Your task to perform on an android device: Clear the cart on walmart.com. Search for lenovo thinkpad on walmart.com, select the first entry, and add it to the cart. Image 0: 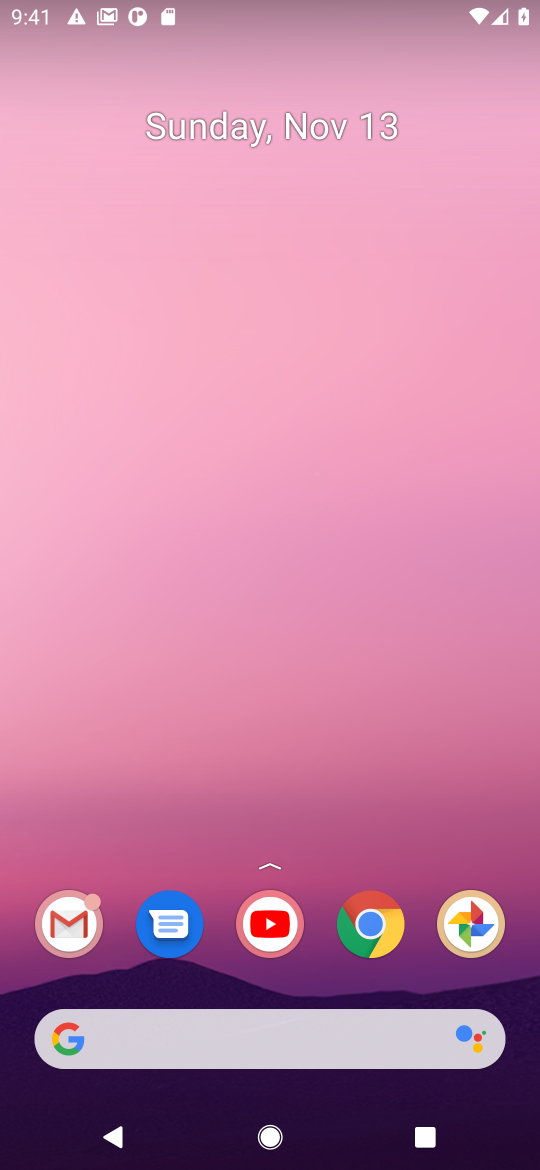
Step 0: click (384, 935)
Your task to perform on an android device: Clear the cart on walmart.com. Search for lenovo thinkpad on walmart.com, select the first entry, and add it to the cart. Image 1: 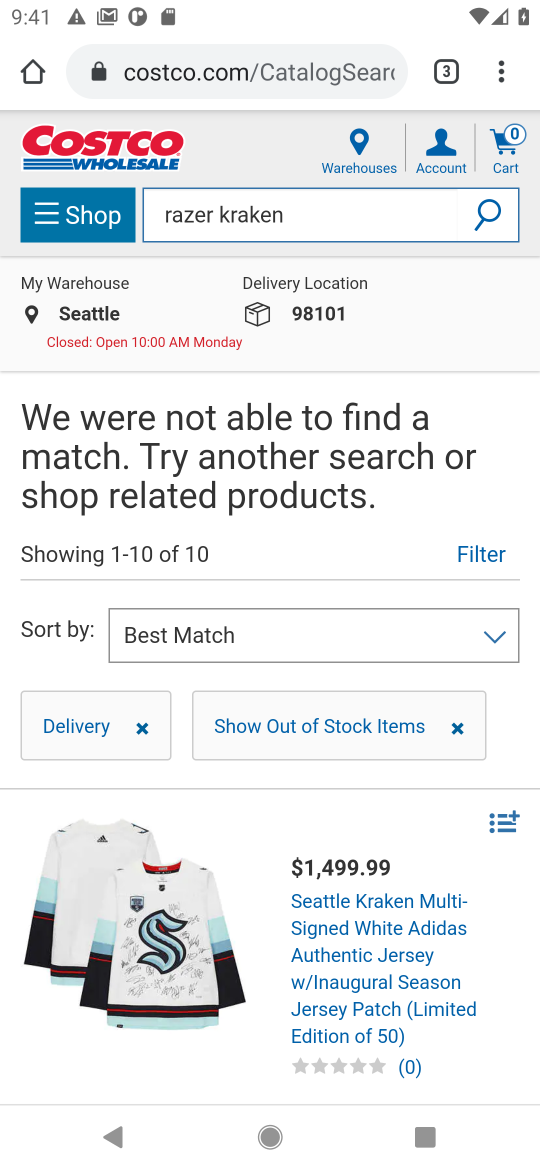
Step 1: click (237, 77)
Your task to perform on an android device: Clear the cart on walmart.com. Search for lenovo thinkpad on walmart.com, select the first entry, and add it to the cart. Image 2: 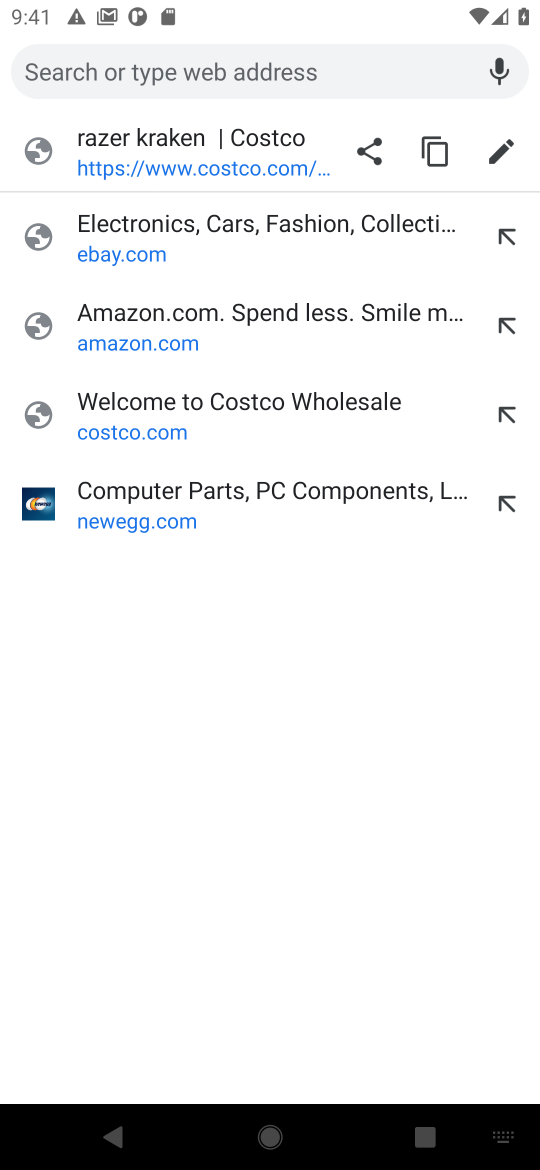
Step 2: type "walmart.com"
Your task to perform on an android device: Clear the cart on walmart.com. Search for lenovo thinkpad on walmart.com, select the first entry, and add it to the cart. Image 3: 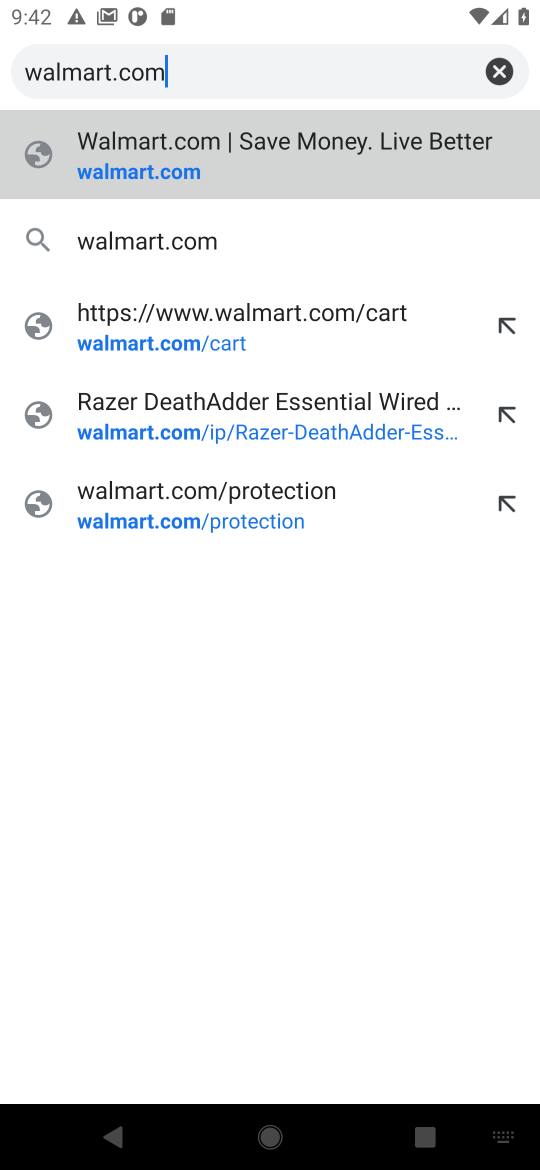
Step 3: click (97, 159)
Your task to perform on an android device: Clear the cart on walmart.com. Search for lenovo thinkpad on walmart.com, select the first entry, and add it to the cart. Image 4: 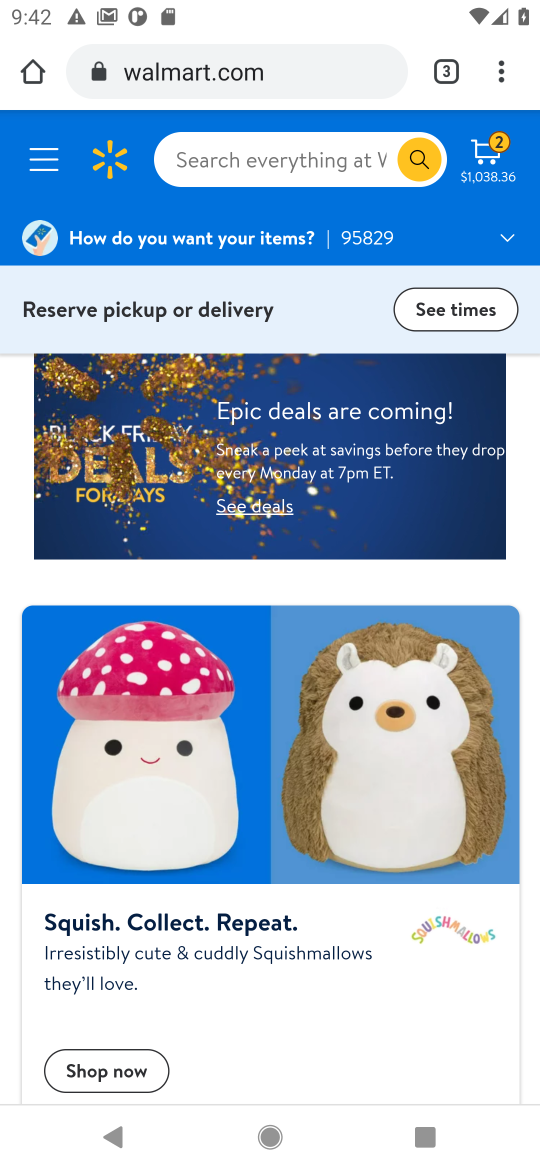
Step 4: click (484, 150)
Your task to perform on an android device: Clear the cart on walmart.com. Search for lenovo thinkpad on walmart.com, select the first entry, and add it to the cart. Image 5: 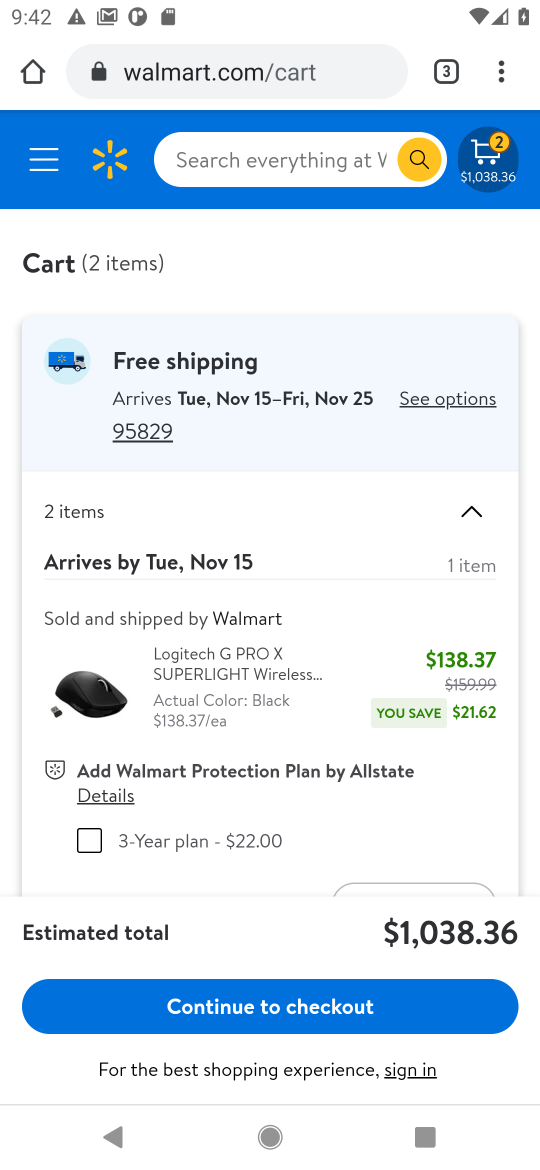
Step 5: drag from (259, 810) to (261, 558)
Your task to perform on an android device: Clear the cart on walmart.com. Search for lenovo thinkpad on walmart.com, select the first entry, and add it to the cart. Image 6: 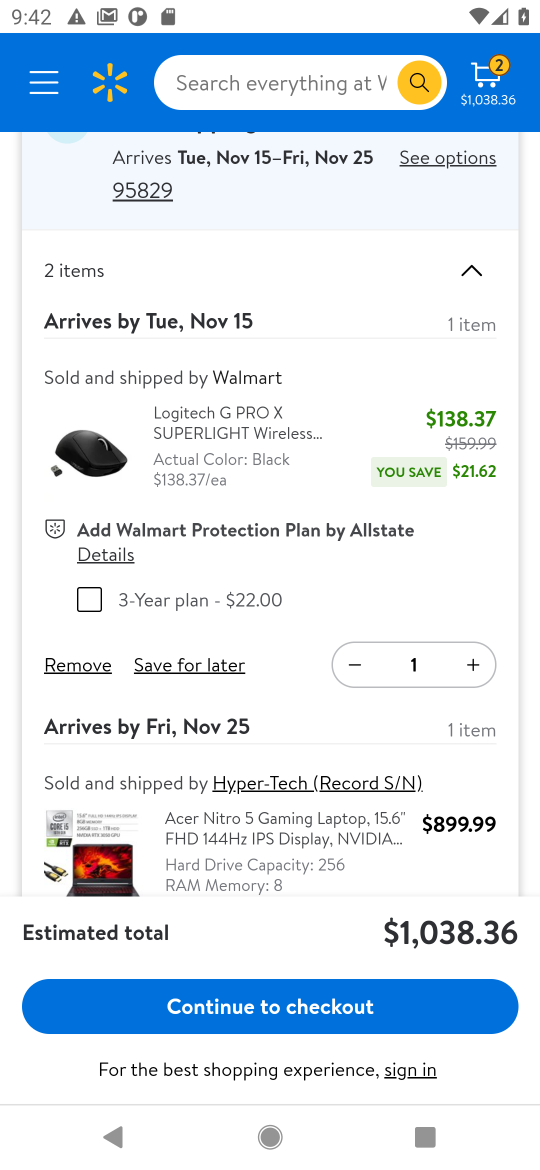
Step 6: click (51, 663)
Your task to perform on an android device: Clear the cart on walmart.com. Search for lenovo thinkpad on walmart.com, select the first entry, and add it to the cart. Image 7: 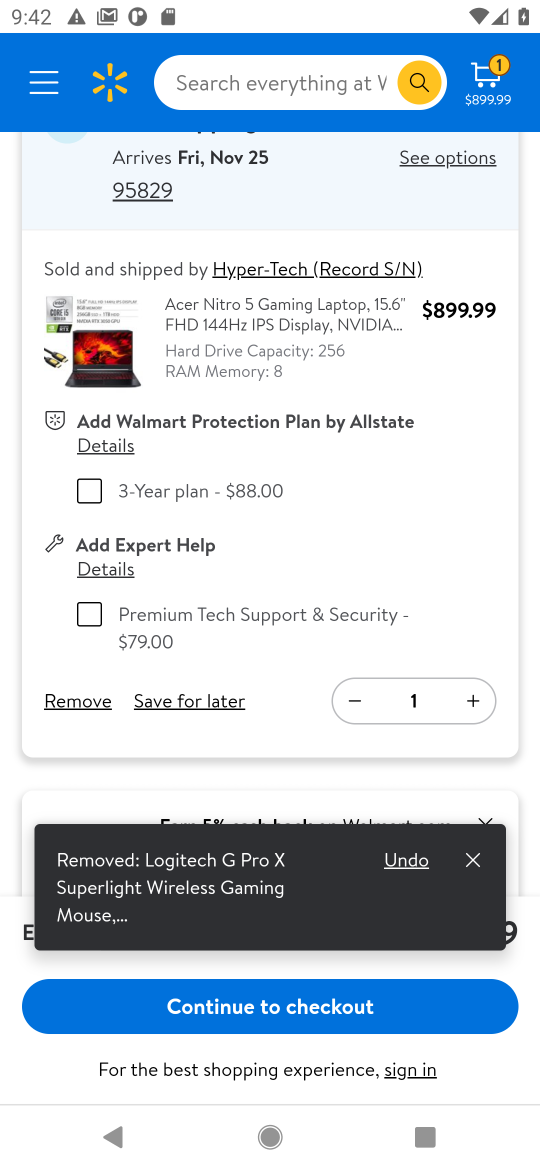
Step 7: click (66, 708)
Your task to perform on an android device: Clear the cart on walmart.com. Search for lenovo thinkpad on walmart.com, select the first entry, and add it to the cart. Image 8: 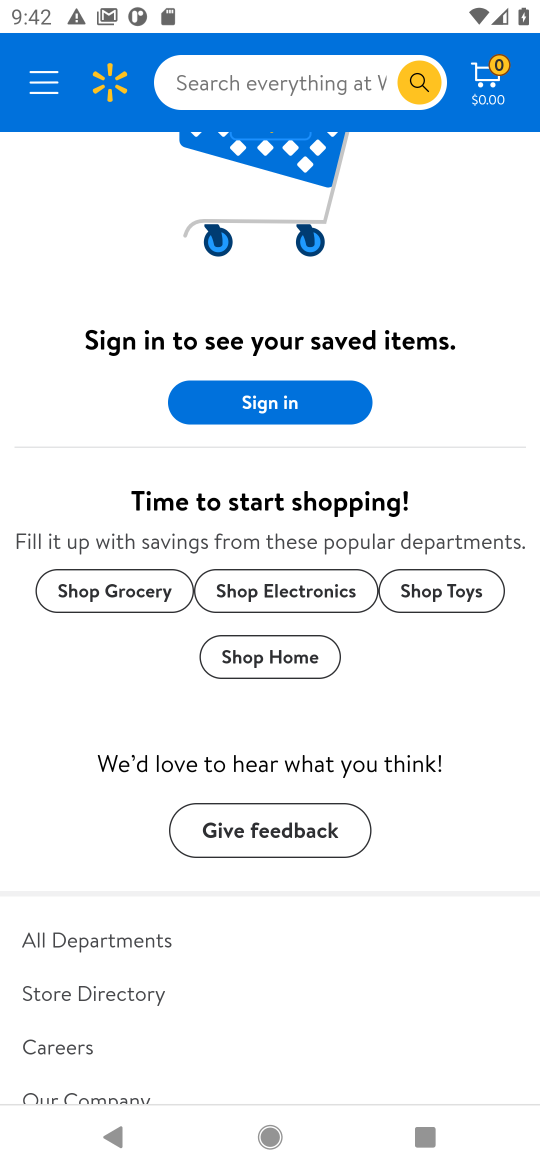
Step 8: click (303, 76)
Your task to perform on an android device: Clear the cart on walmart.com. Search for lenovo thinkpad on walmart.com, select the first entry, and add it to the cart. Image 9: 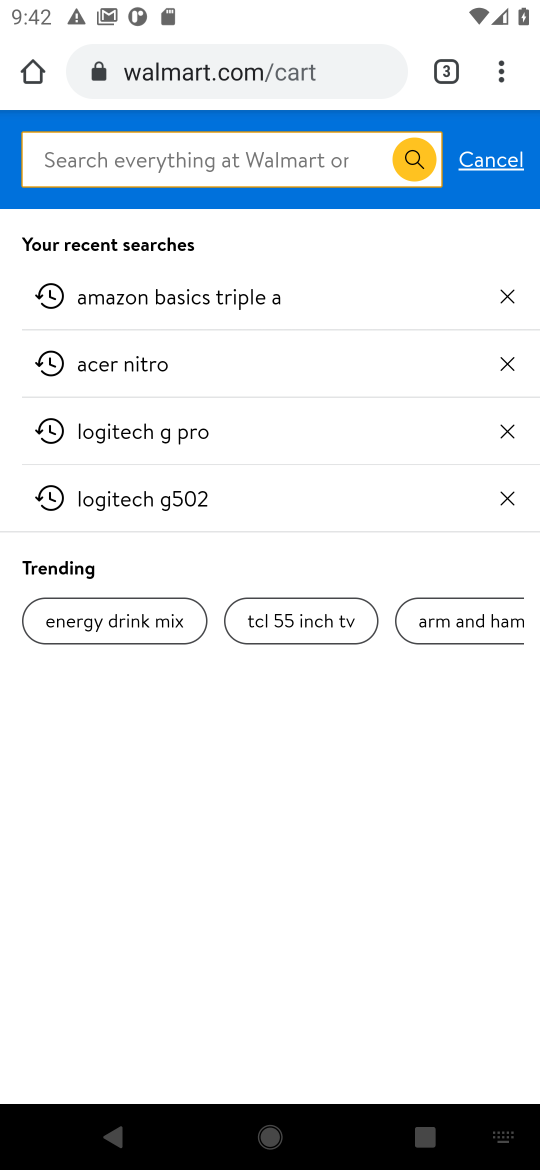
Step 9: type "lenovo thinkpad"
Your task to perform on an android device: Clear the cart on walmart.com. Search for lenovo thinkpad on walmart.com, select the first entry, and add it to the cart. Image 10: 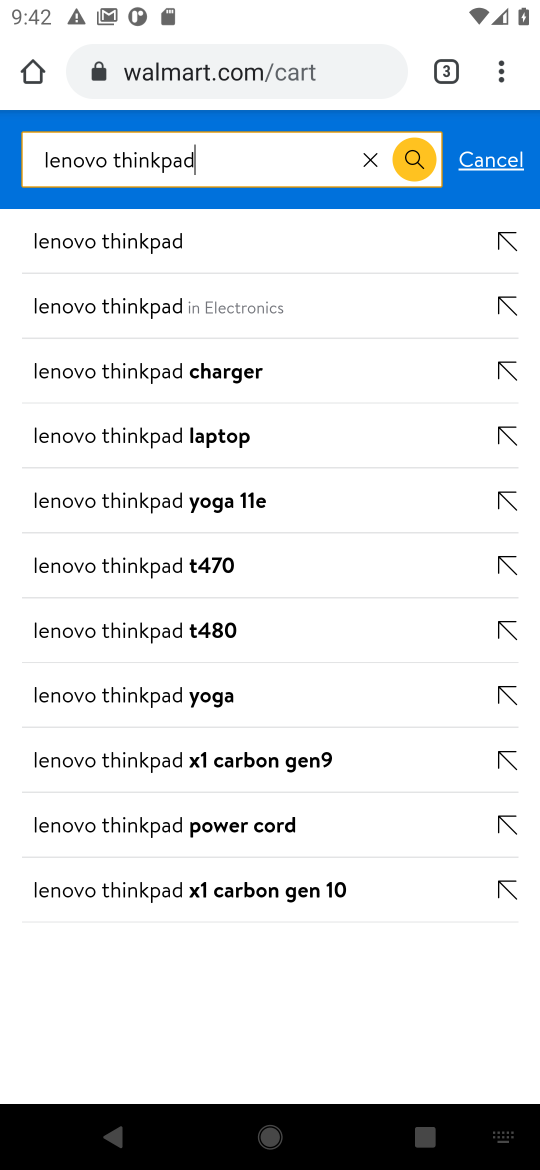
Step 10: click (67, 260)
Your task to perform on an android device: Clear the cart on walmart.com. Search for lenovo thinkpad on walmart.com, select the first entry, and add it to the cart. Image 11: 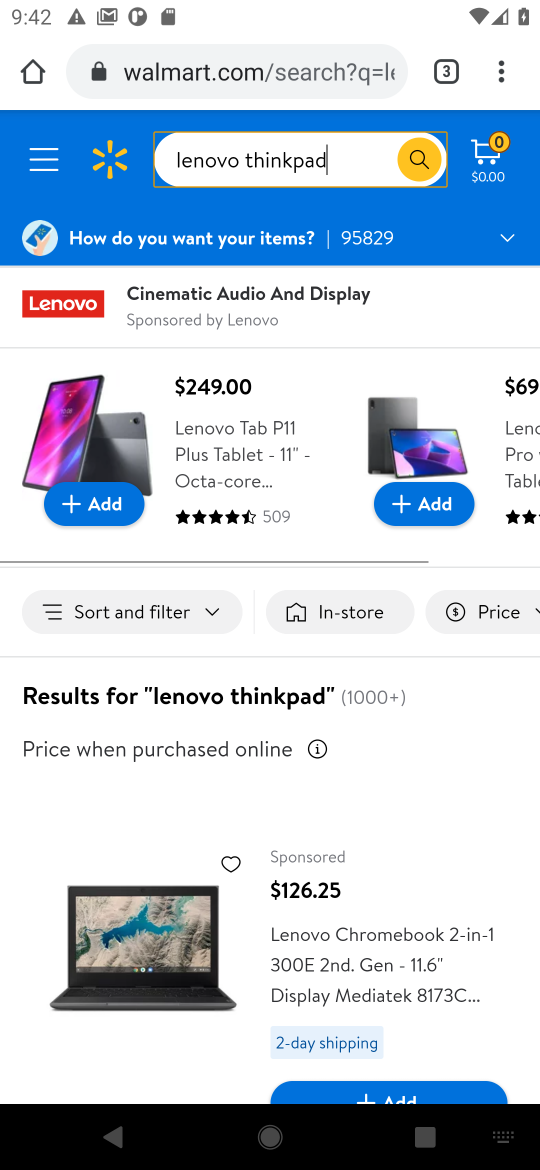
Step 11: task complete